Your task to perform on an android device: toggle airplane mode Image 0: 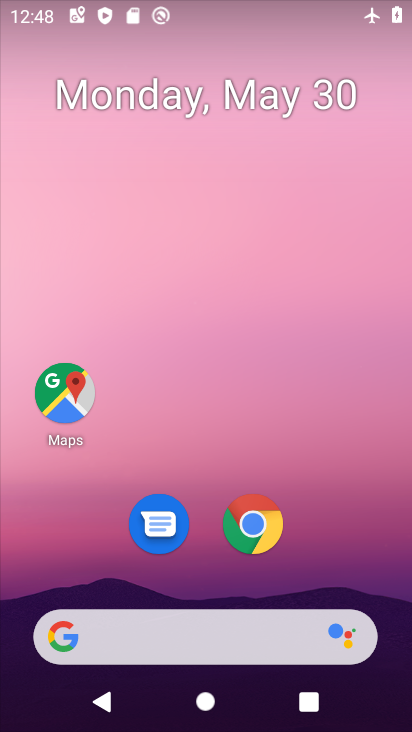
Step 0: drag from (317, 537) to (302, 32)
Your task to perform on an android device: toggle airplane mode Image 1: 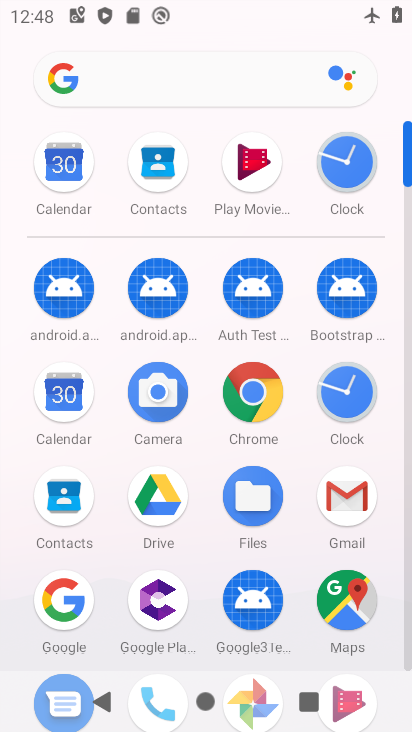
Step 1: drag from (206, 489) to (212, 198)
Your task to perform on an android device: toggle airplane mode Image 2: 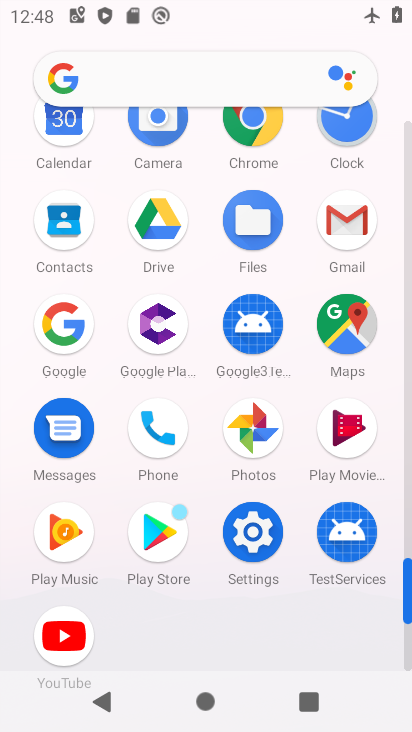
Step 2: click (247, 540)
Your task to perform on an android device: toggle airplane mode Image 3: 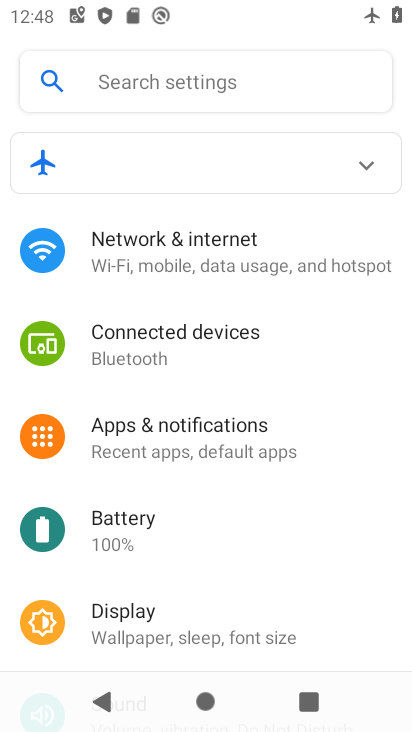
Step 3: click (311, 256)
Your task to perform on an android device: toggle airplane mode Image 4: 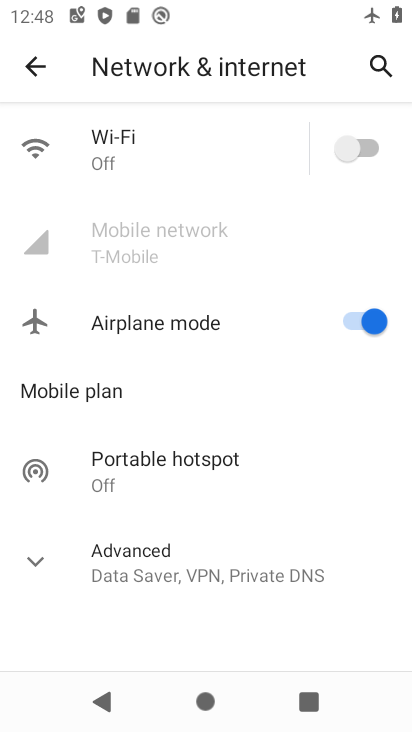
Step 4: click (345, 307)
Your task to perform on an android device: toggle airplane mode Image 5: 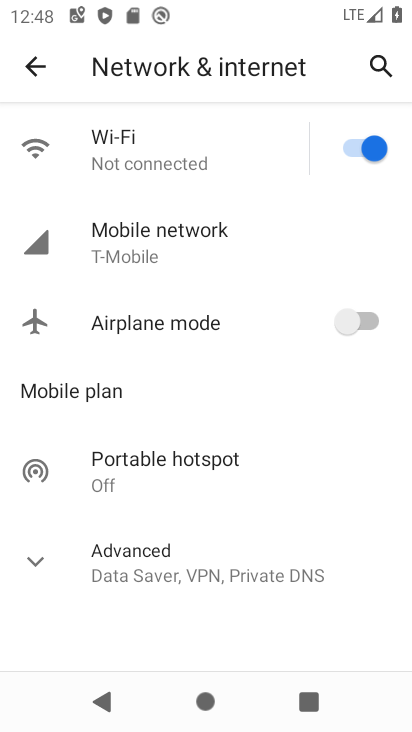
Step 5: task complete